Your task to perform on an android device: Open Google Chrome and open the bookmarks view Image 0: 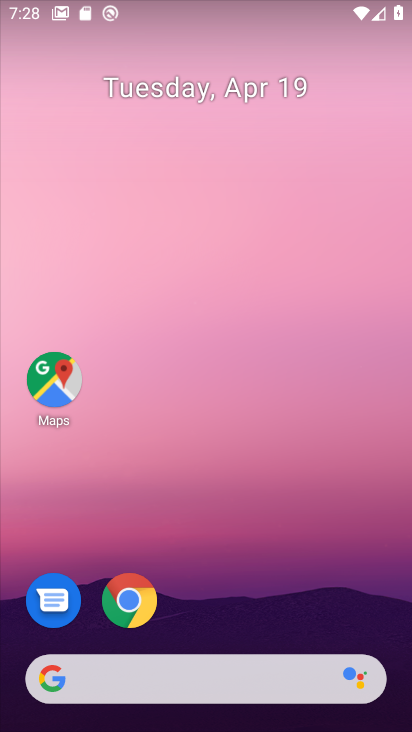
Step 0: drag from (282, 559) to (299, 78)
Your task to perform on an android device: Open Google Chrome and open the bookmarks view Image 1: 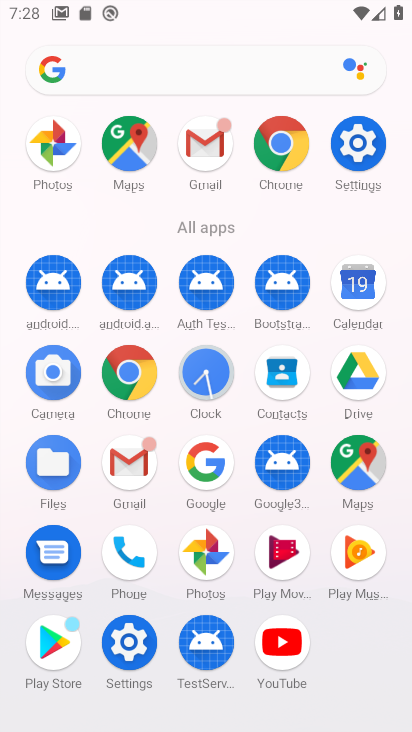
Step 1: click (288, 138)
Your task to perform on an android device: Open Google Chrome and open the bookmarks view Image 2: 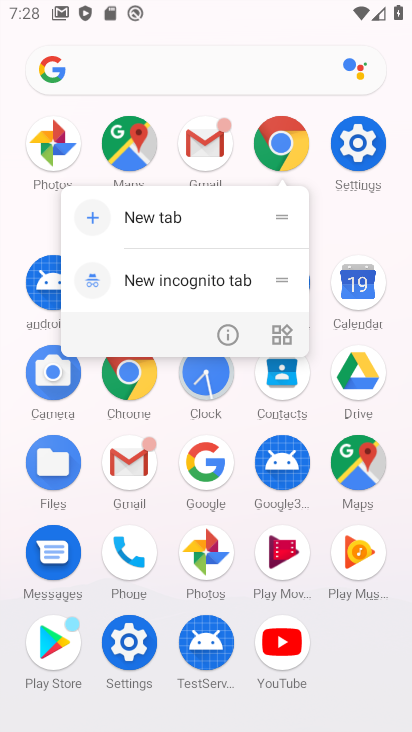
Step 2: click (288, 139)
Your task to perform on an android device: Open Google Chrome and open the bookmarks view Image 3: 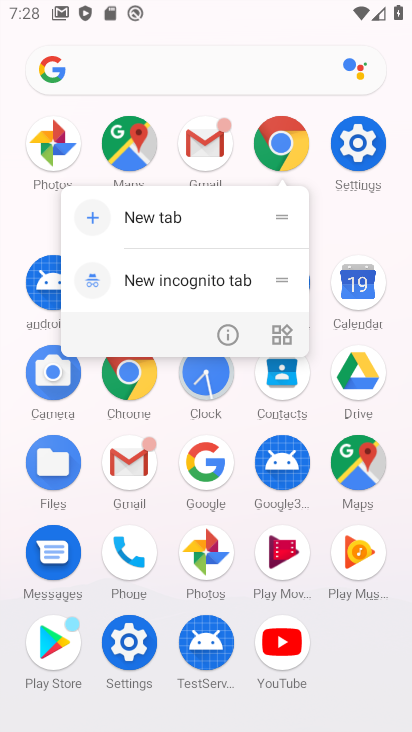
Step 3: click (288, 139)
Your task to perform on an android device: Open Google Chrome and open the bookmarks view Image 4: 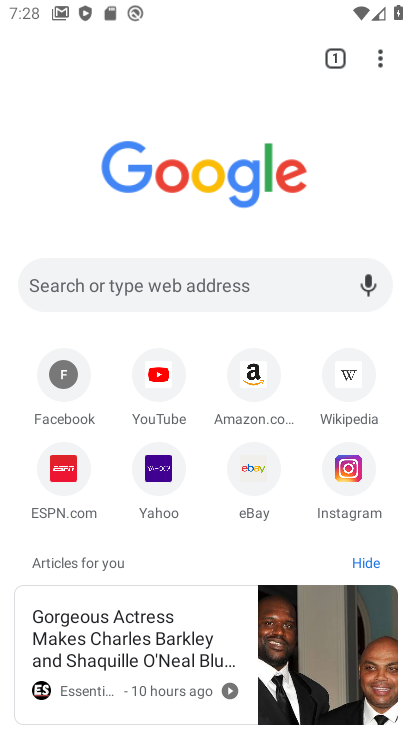
Step 4: click (378, 63)
Your task to perform on an android device: Open Google Chrome and open the bookmarks view Image 5: 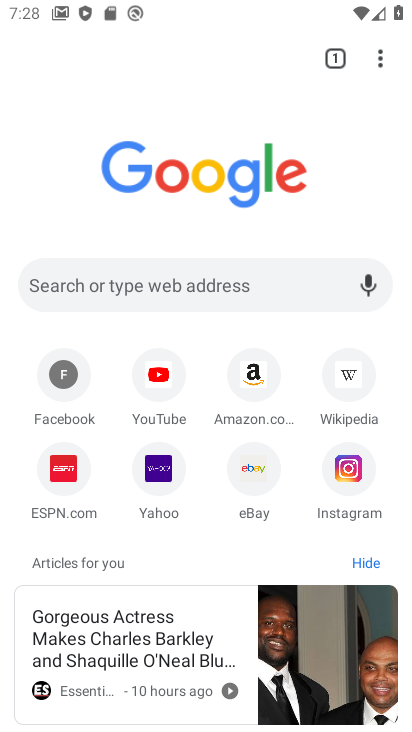
Step 5: click (381, 47)
Your task to perform on an android device: Open Google Chrome and open the bookmarks view Image 6: 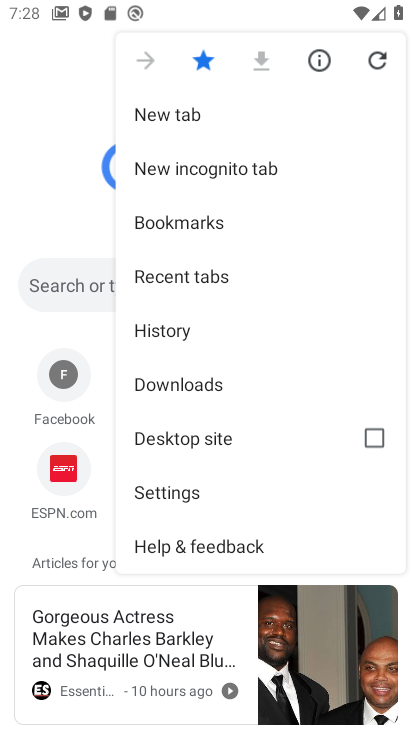
Step 6: click (248, 232)
Your task to perform on an android device: Open Google Chrome and open the bookmarks view Image 7: 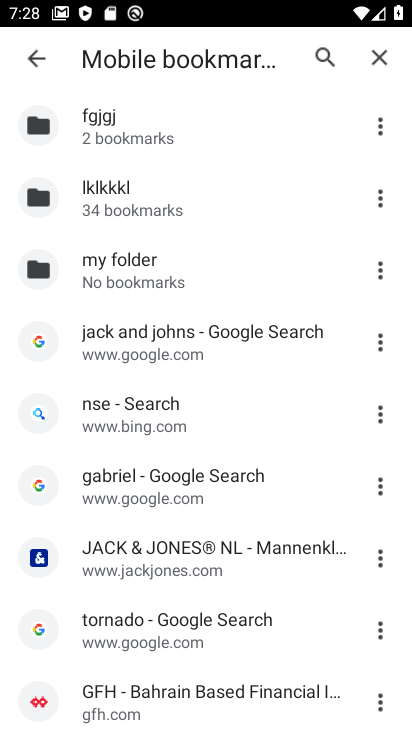
Step 7: task complete